Your task to perform on an android device: Open sound settings Image 0: 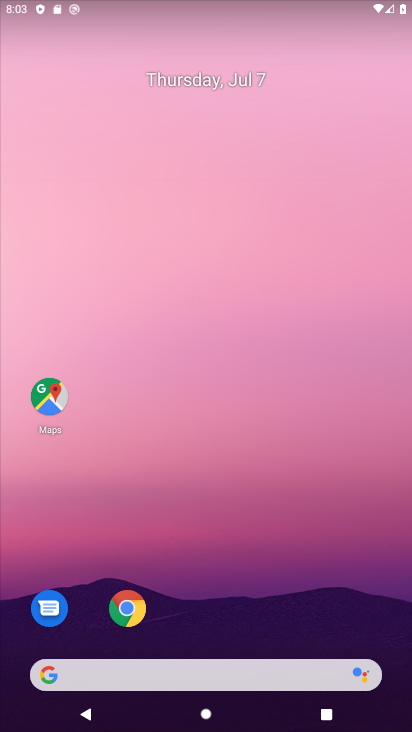
Step 0: drag from (327, 604) to (381, 113)
Your task to perform on an android device: Open sound settings Image 1: 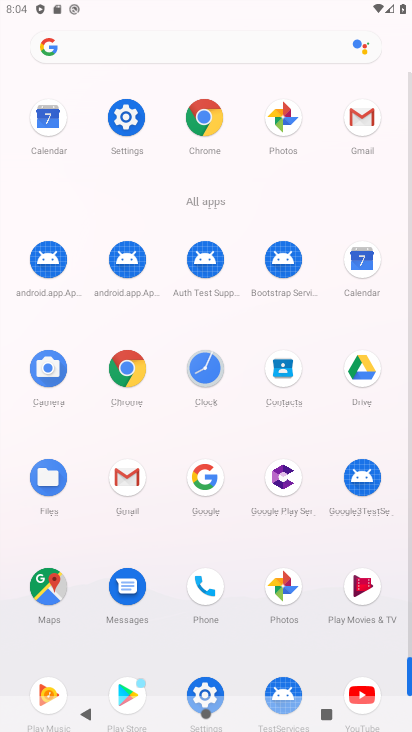
Step 1: click (127, 117)
Your task to perform on an android device: Open sound settings Image 2: 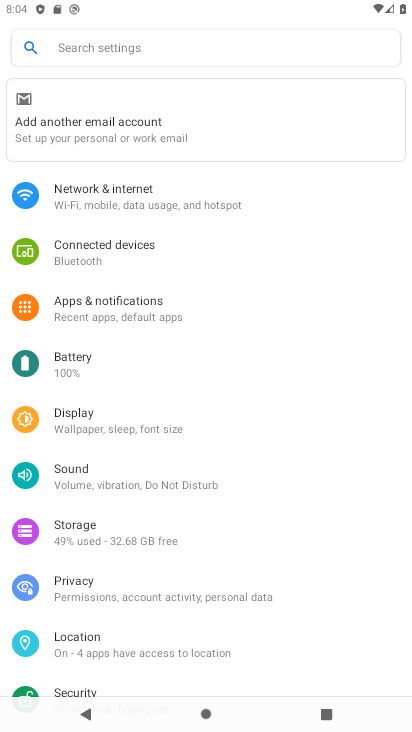
Step 2: drag from (313, 345) to (313, 249)
Your task to perform on an android device: Open sound settings Image 3: 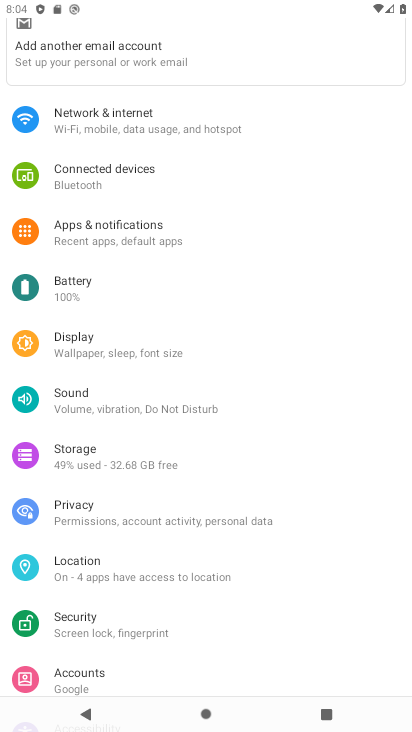
Step 3: drag from (314, 393) to (317, 278)
Your task to perform on an android device: Open sound settings Image 4: 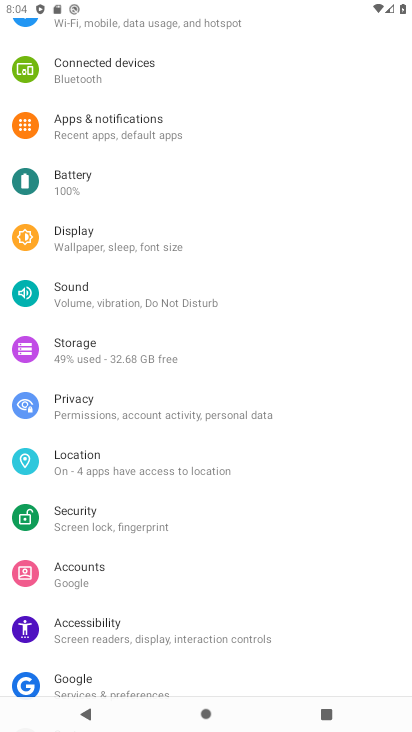
Step 4: drag from (316, 396) to (318, 276)
Your task to perform on an android device: Open sound settings Image 5: 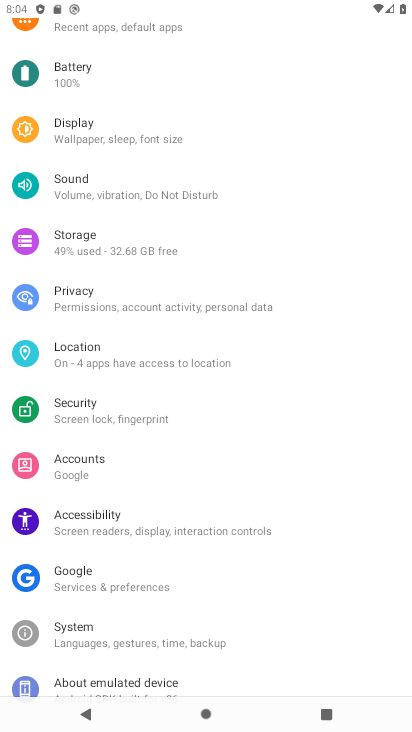
Step 5: drag from (314, 416) to (314, 288)
Your task to perform on an android device: Open sound settings Image 6: 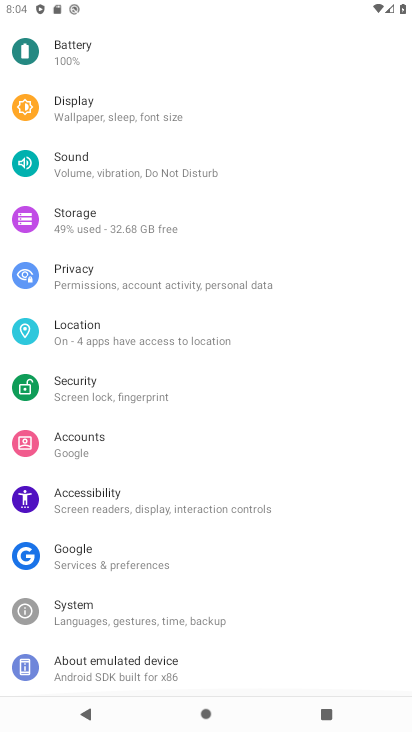
Step 6: drag from (317, 235) to (317, 302)
Your task to perform on an android device: Open sound settings Image 7: 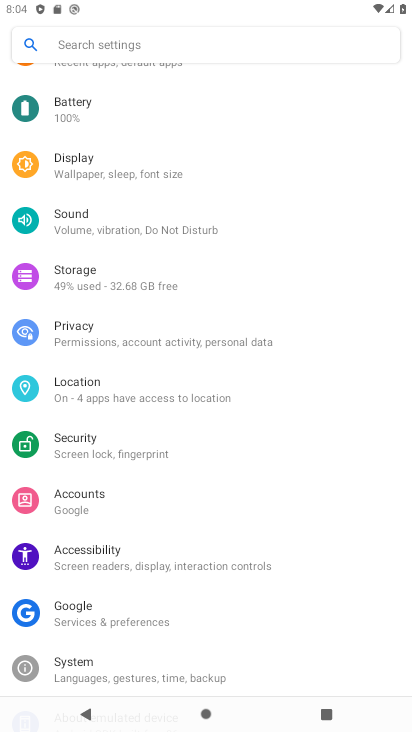
Step 7: drag from (310, 252) to (311, 344)
Your task to perform on an android device: Open sound settings Image 8: 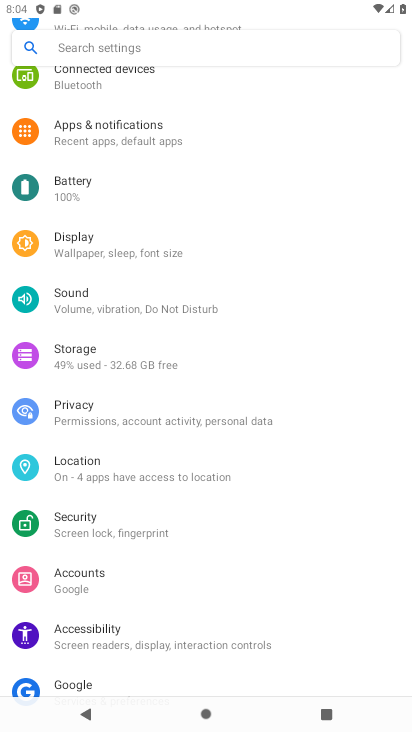
Step 8: drag from (305, 242) to (315, 413)
Your task to perform on an android device: Open sound settings Image 9: 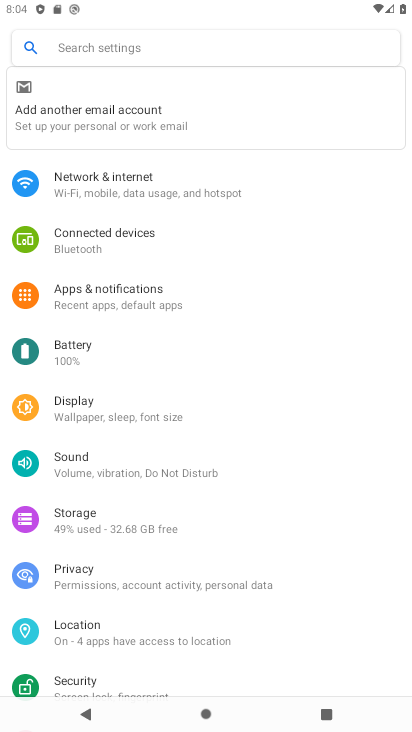
Step 9: click (222, 469)
Your task to perform on an android device: Open sound settings Image 10: 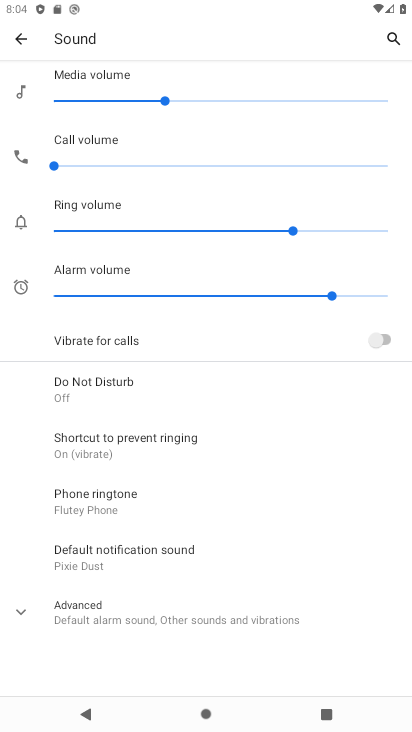
Step 10: task complete